Your task to perform on an android device: Open network settings Image 0: 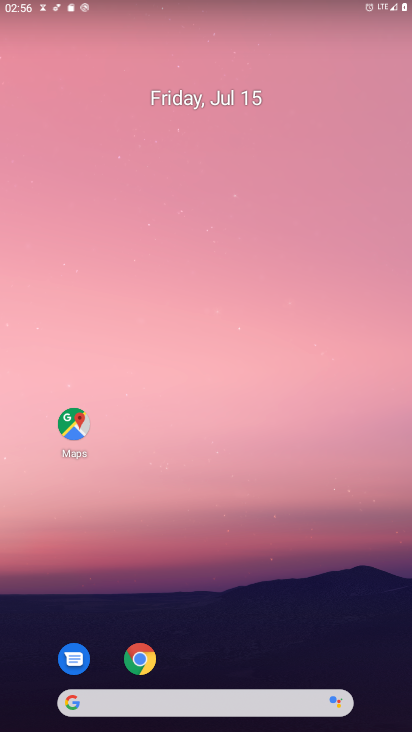
Step 0: drag from (247, 655) to (270, 270)
Your task to perform on an android device: Open network settings Image 1: 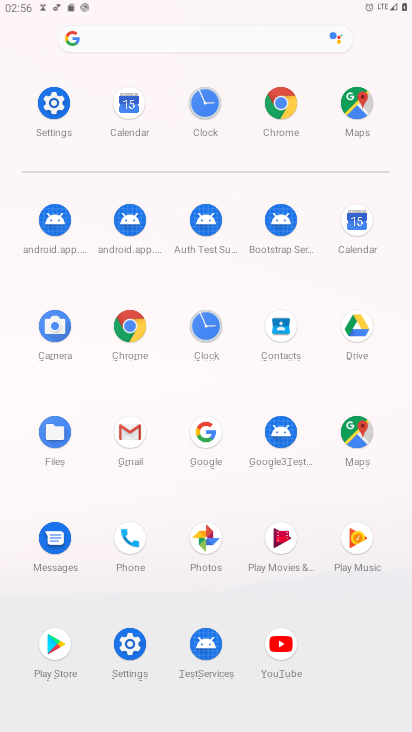
Step 1: click (42, 92)
Your task to perform on an android device: Open network settings Image 2: 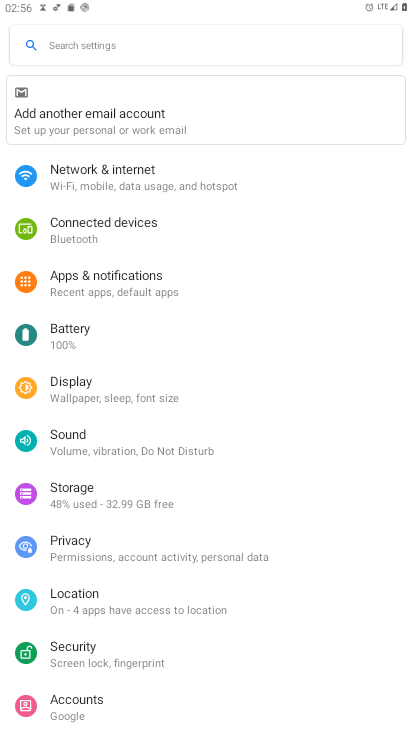
Step 2: click (100, 182)
Your task to perform on an android device: Open network settings Image 3: 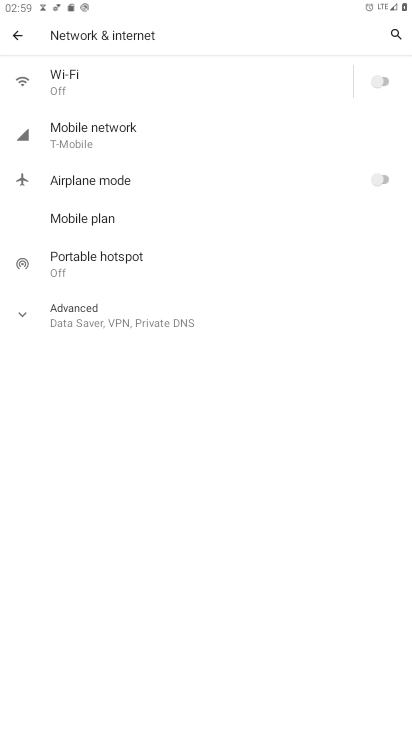
Step 3: task complete